Your task to perform on an android device: change your default location settings in chrome Image 0: 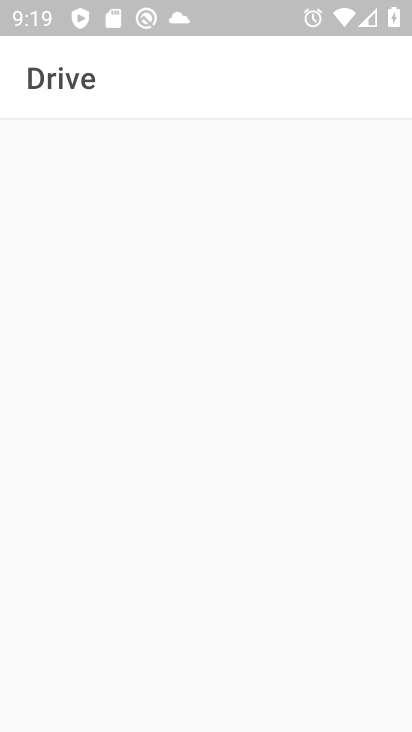
Step 0: press home button
Your task to perform on an android device: change your default location settings in chrome Image 1: 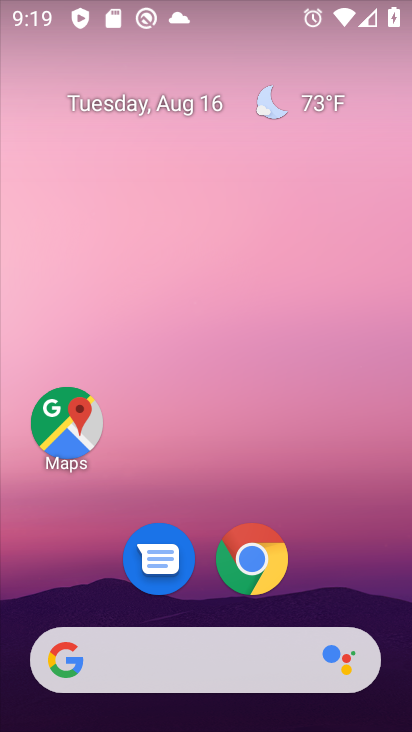
Step 1: click (250, 561)
Your task to perform on an android device: change your default location settings in chrome Image 2: 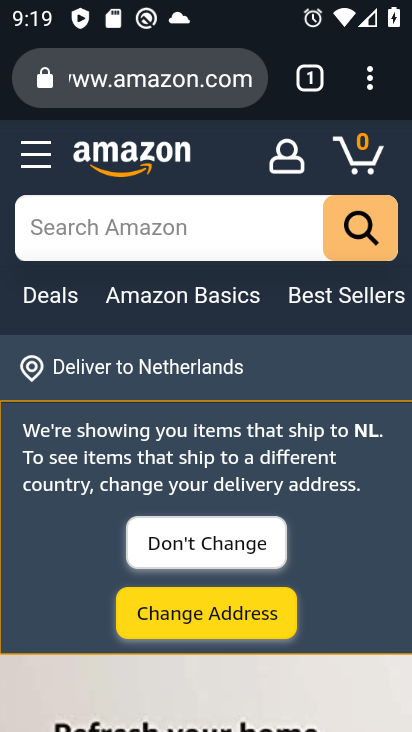
Step 2: click (380, 82)
Your task to perform on an android device: change your default location settings in chrome Image 3: 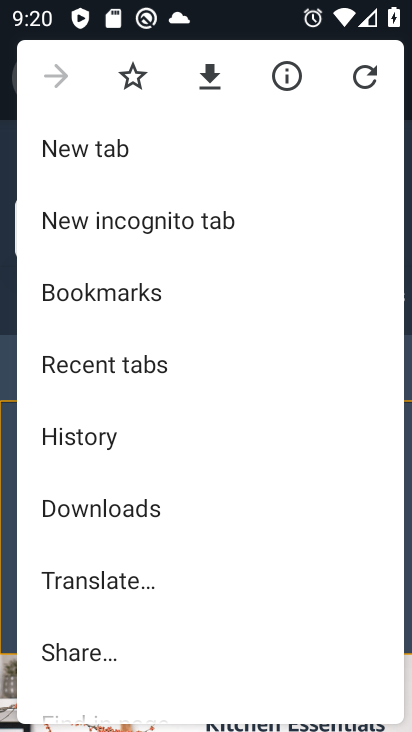
Step 3: drag from (129, 621) to (149, 486)
Your task to perform on an android device: change your default location settings in chrome Image 4: 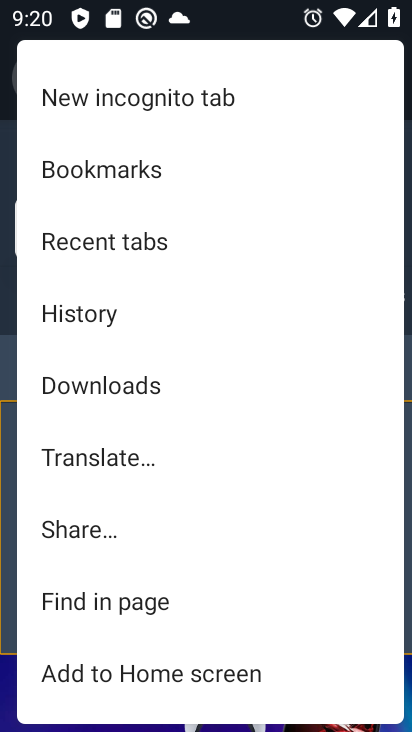
Step 4: drag from (80, 565) to (115, 442)
Your task to perform on an android device: change your default location settings in chrome Image 5: 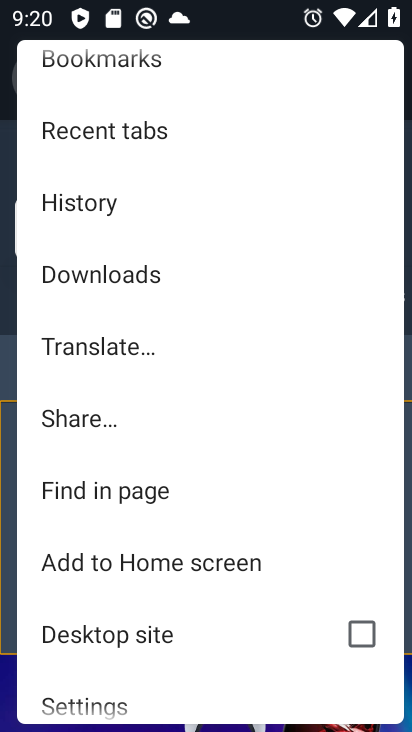
Step 5: drag from (105, 592) to (104, 403)
Your task to perform on an android device: change your default location settings in chrome Image 6: 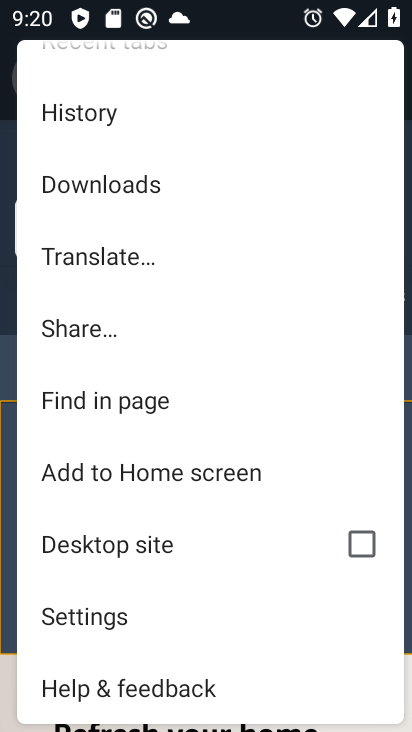
Step 6: click (83, 616)
Your task to perform on an android device: change your default location settings in chrome Image 7: 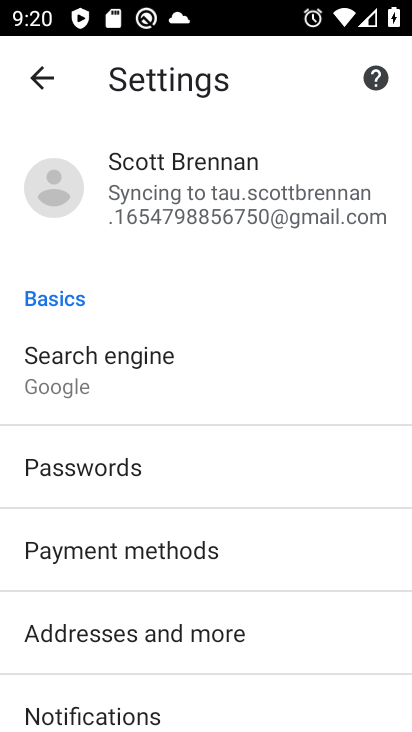
Step 7: drag from (98, 570) to (158, 486)
Your task to perform on an android device: change your default location settings in chrome Image 8: 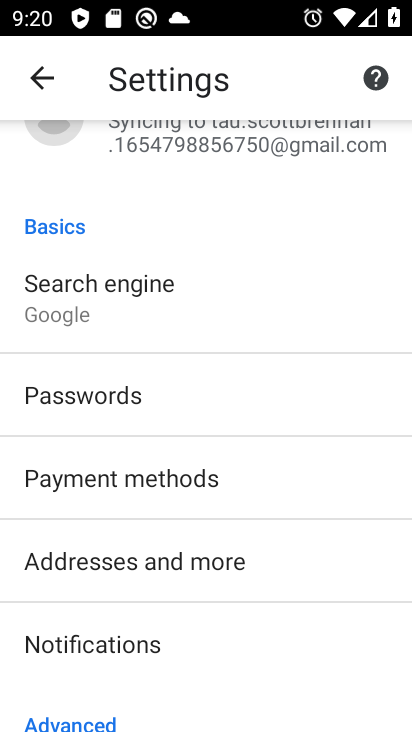
Step 8: drag from (119, 572) to (186, 461)
Your task to perform on an android device: change your default location settings in chrome Image 9: 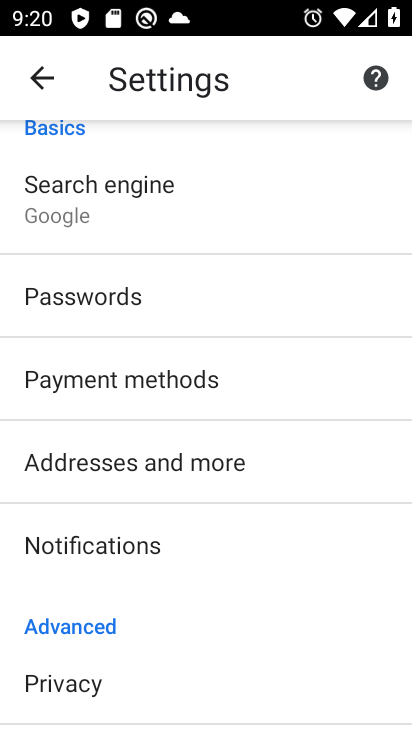
Step 9: drag from (140, 633) to (206, 509)
Your task to perform on an android device: change your default location settings in chrome Image 10: 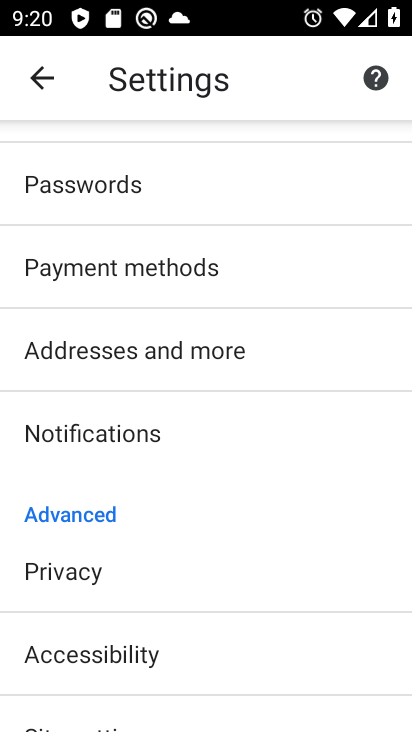
Step 10: drag from (180, 609) to (257, 499)
Your task to perform on an android device: change your default location settings in chrome Image 11: 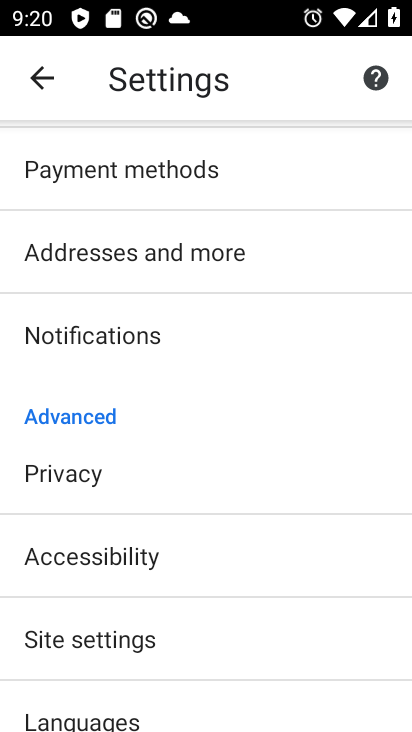
Step 11: drag from (162, 615) to (226, 497)
Your task to perform on an android device: change your default location settings in chrome Image 12: 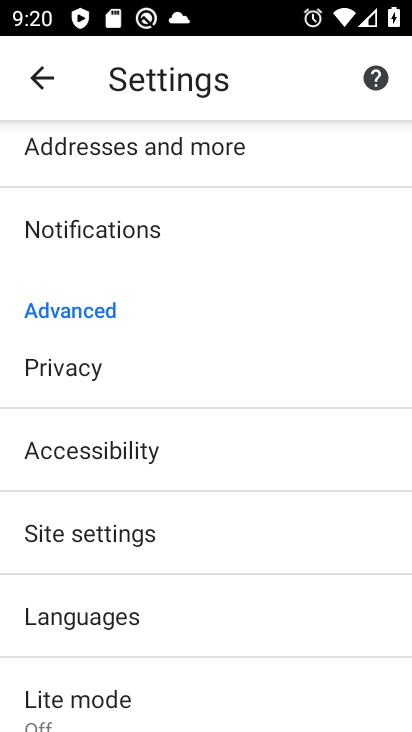
Step 12: click (120, 539)
Your task to perform on an android device: change your default location settings in chrome Image 13: 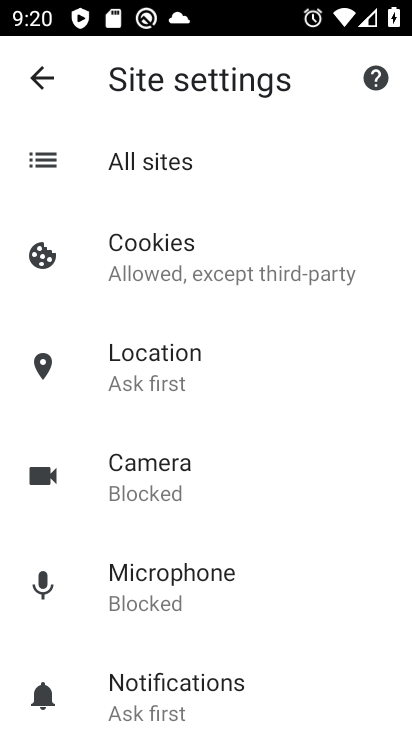
Step 13: drag from (206, 649) to (263, 517)
Your task to perform on an android device: change your default location settings in chrome Image 14: 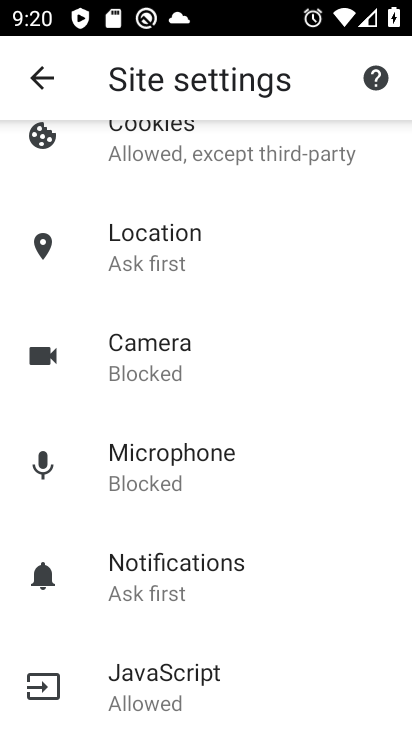
Step 14: click (167, 252)
Your task to perform on an android device: change your default location settings in chrome Image 15: 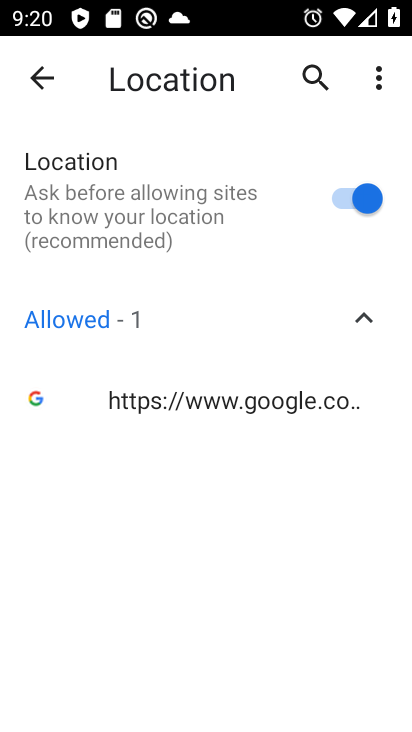
Step 15: click (346, 209)
Your task to perform on an android device: change your default location settings in chrome Image 16: 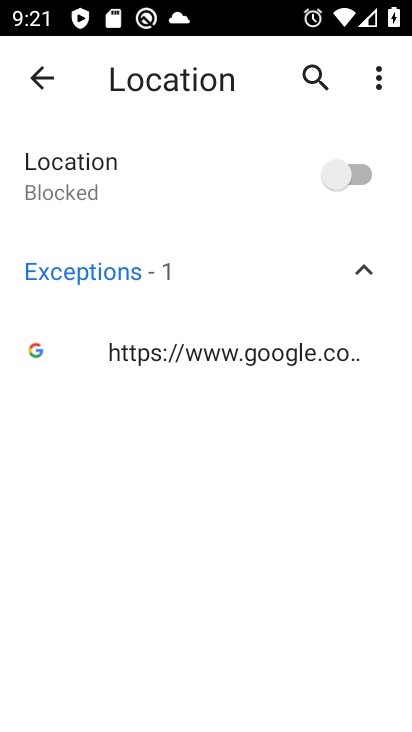
Step 16: task complete